Your task to perform on an android device: turn on sleep mode Image 0: 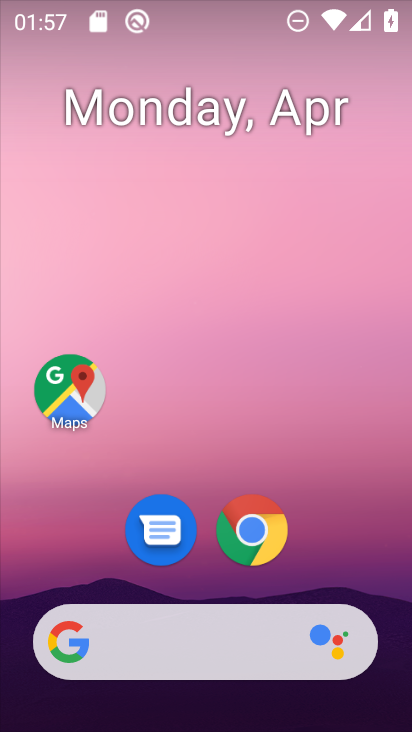
Step 0: drag from (329, 557) to (259, 79)
Your task to perform on an android device: turn on sleep mode Image 1: 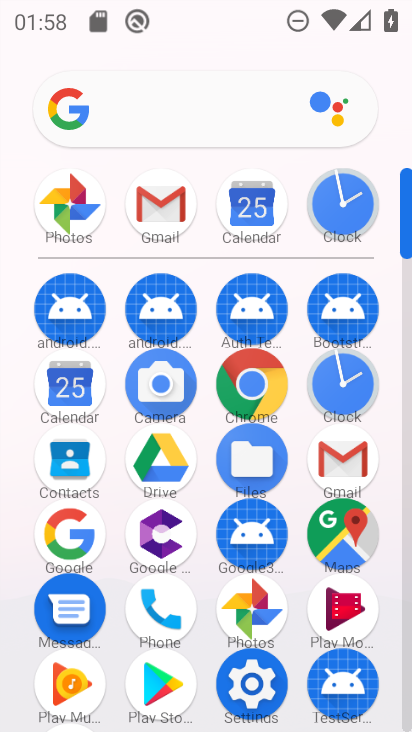
Step 1: click (256, 671)
Your task to perform on an android device: turn on sleep mode Image 2: 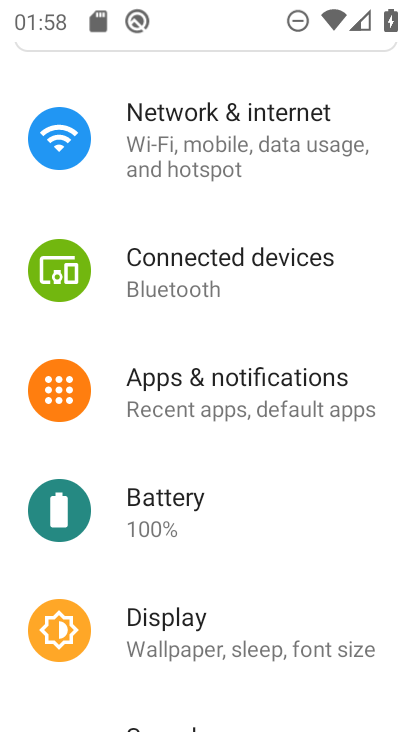
Step 2: drag from (206, 427) to (200, 203)
Your task to perform on an android device: turn on sleep mode Image 3: 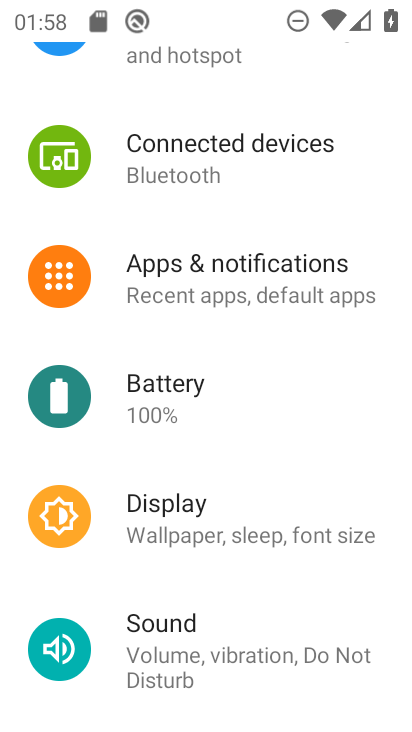
Step 3: click (266, 583)
Your task to perform on an android device: turn on sleep mode Image 4: 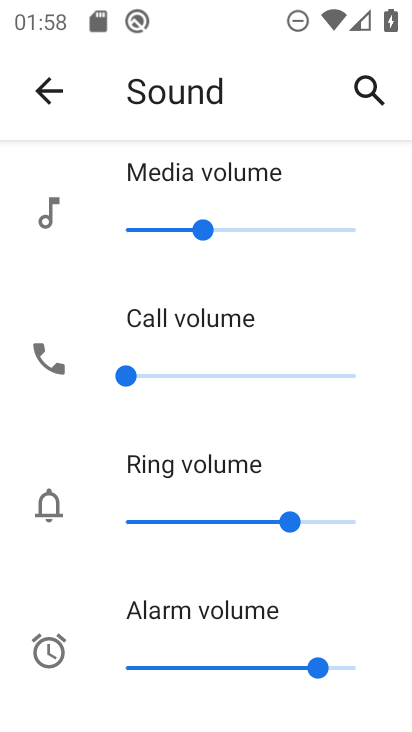
Step 4: task complete